Your task to perform on an android device: open app "The Home Depot" Image 0: 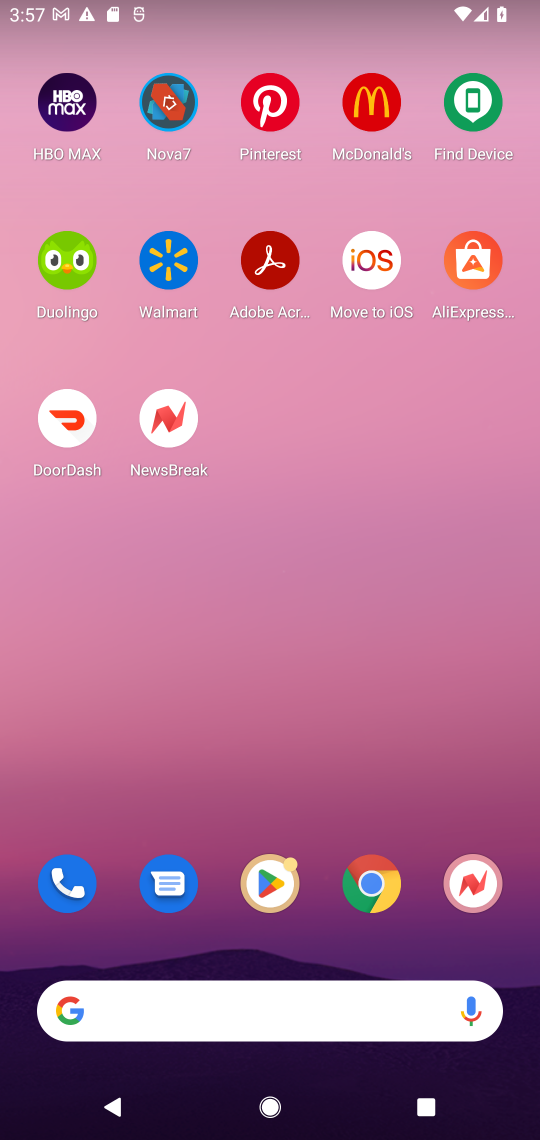
Step 0: drag from (214, 962) to (214, 370)
Your task to perform on an android device: open app "The Home Depot" Image 1: 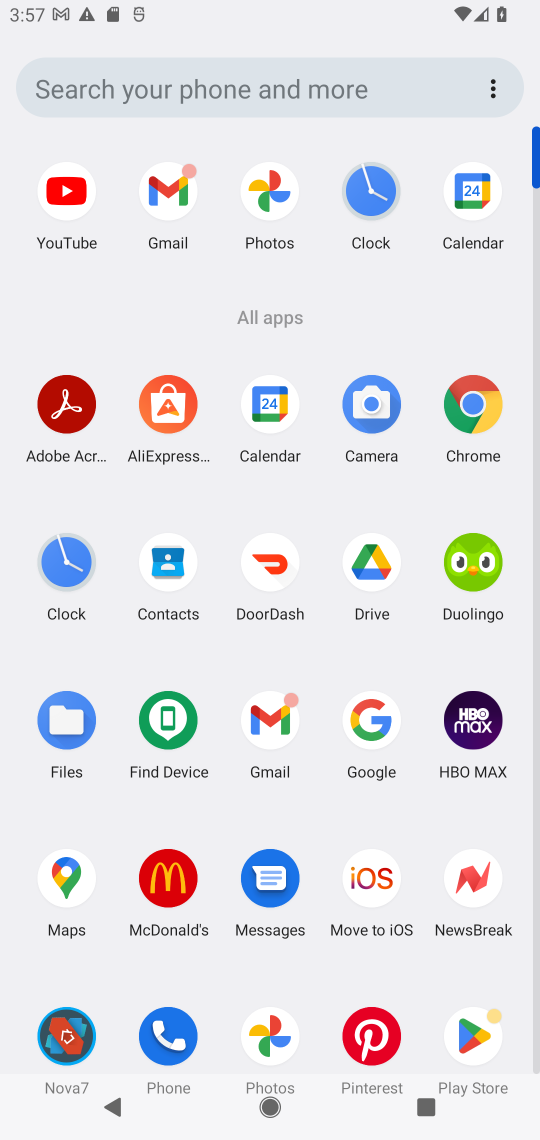
Step 1: click (467, 1047)
Your task to perform on an android device: open app "The Home Depot" Image 2: 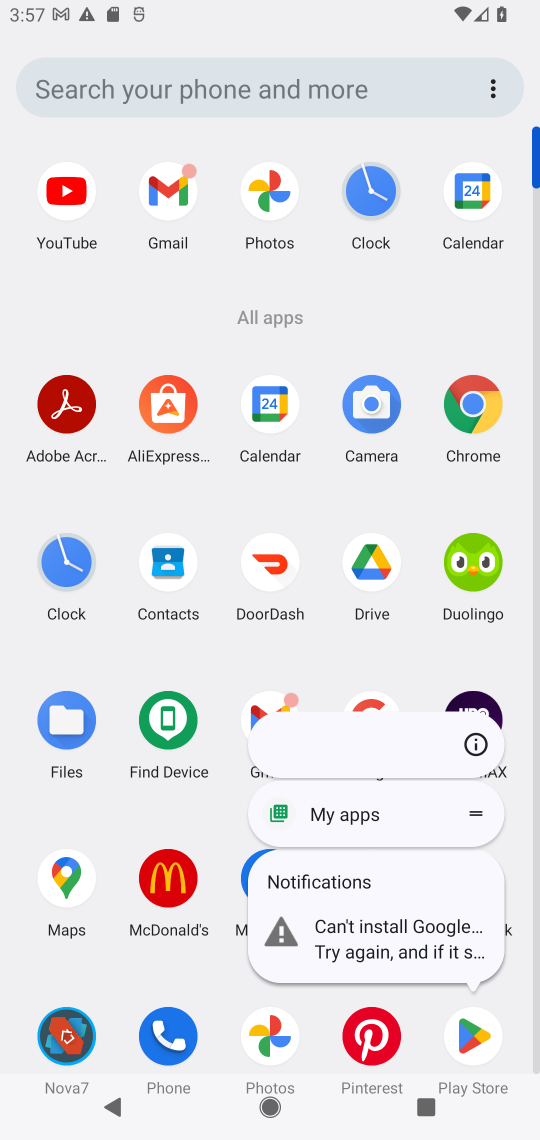
Step 2: click (485, 1037)
Your task to perform on an android device: open app "The Home Depot" Image 3: 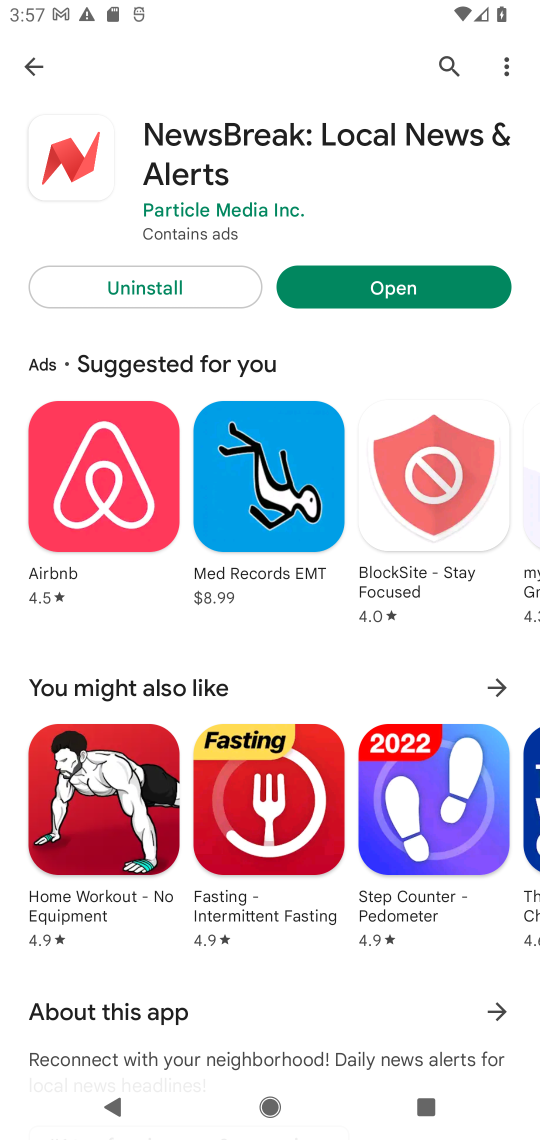
Step 3: click (446, 67)
Your task to perform on an android device: open app "The Home Depot" Image 4: 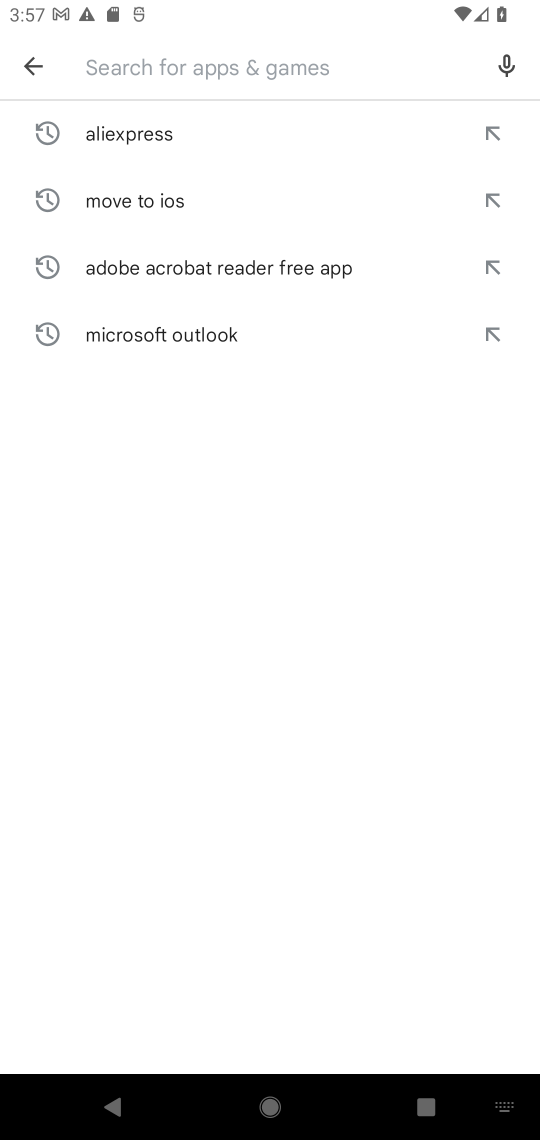
Step 4: type "The Home Depot"
Your task to perform on an android device: open app "The Home Depot" Image 5: 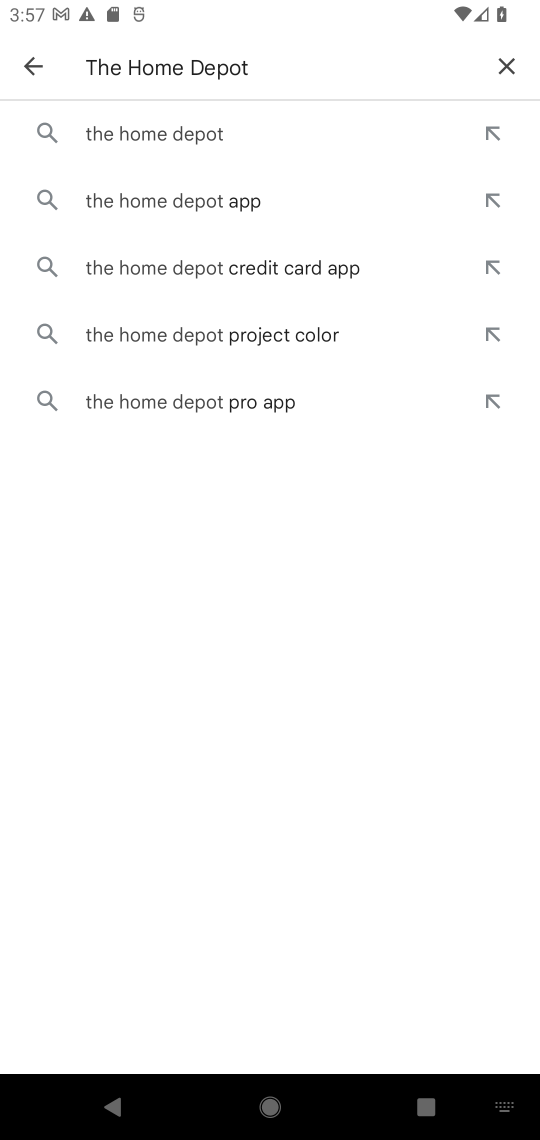
Step 5: click (143, 132)
Your task to perform on an android device: open app "The Home Depot" Image 6: 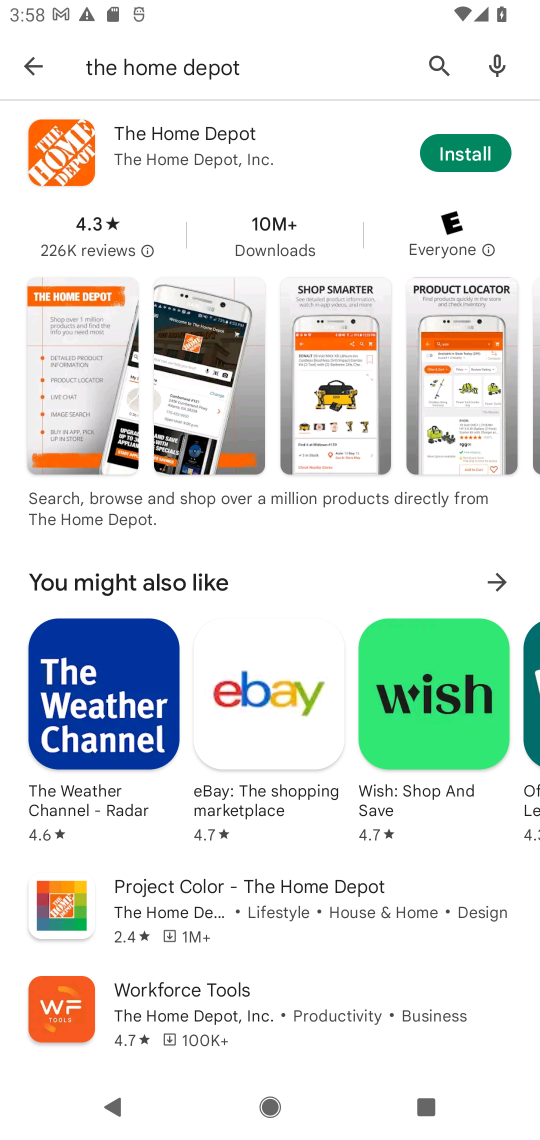
Step 6: click (443, 154)
Your task to perform on an android device: open app "The Home Depot" Image 7: 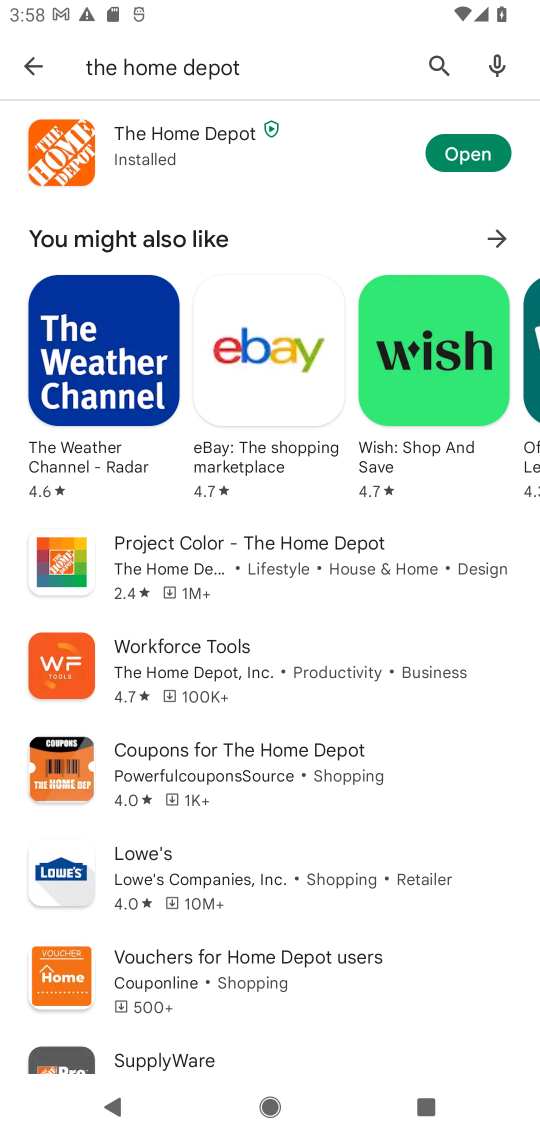
Step 7: click (448, 145)
Your task to perform on an android device: open app "The Home Depot" Image 8: 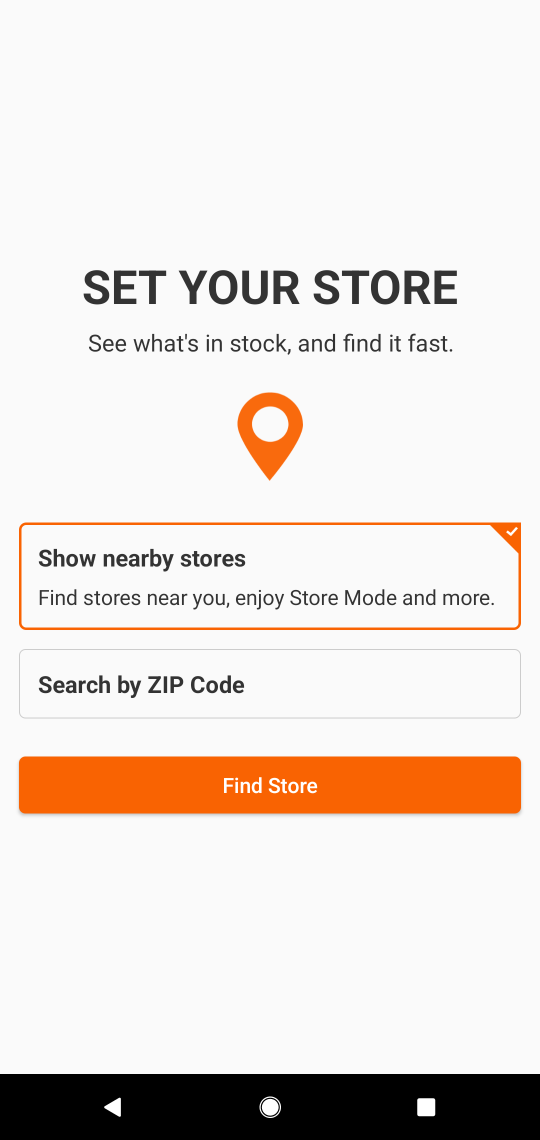
Step 8: task complete